Your task to perform on an android device: open app "PUBG MOBILE" (install if not already installed) and go to login screen Image 0: 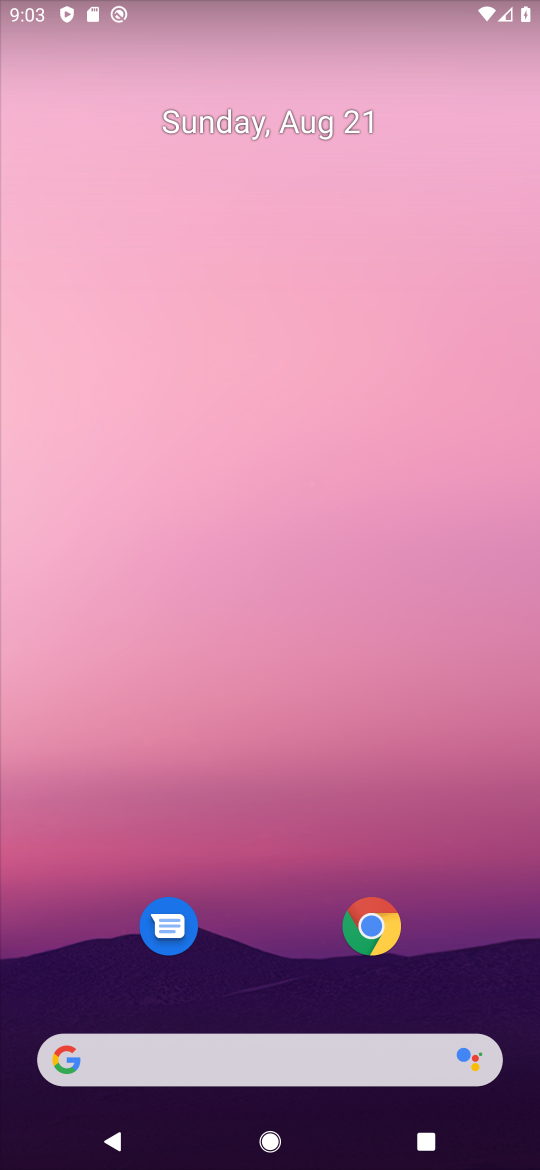
Step 0: drag from (260, 884) to (389, 1)
Your task to perform on an android device: open app "PUBG MOBILE" (install if not already installed) and go to login screen Image 1: 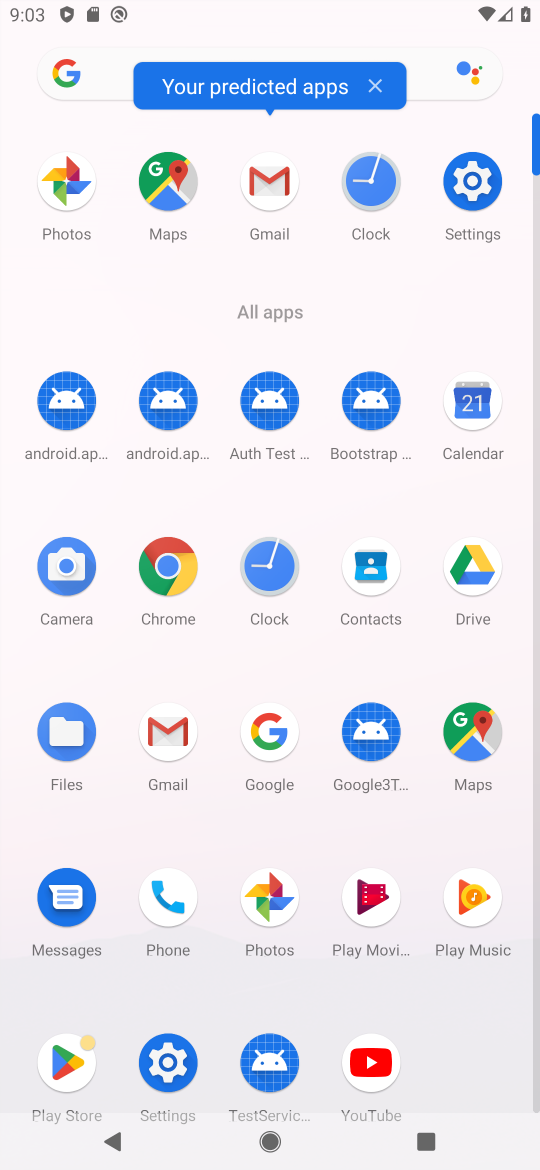
Step 1: drag from (287, 924) to (416, 328)
Your task to perform on an android device: open app "PUBG MOBILE" (install if not already installed) and go to login screen Image 2: 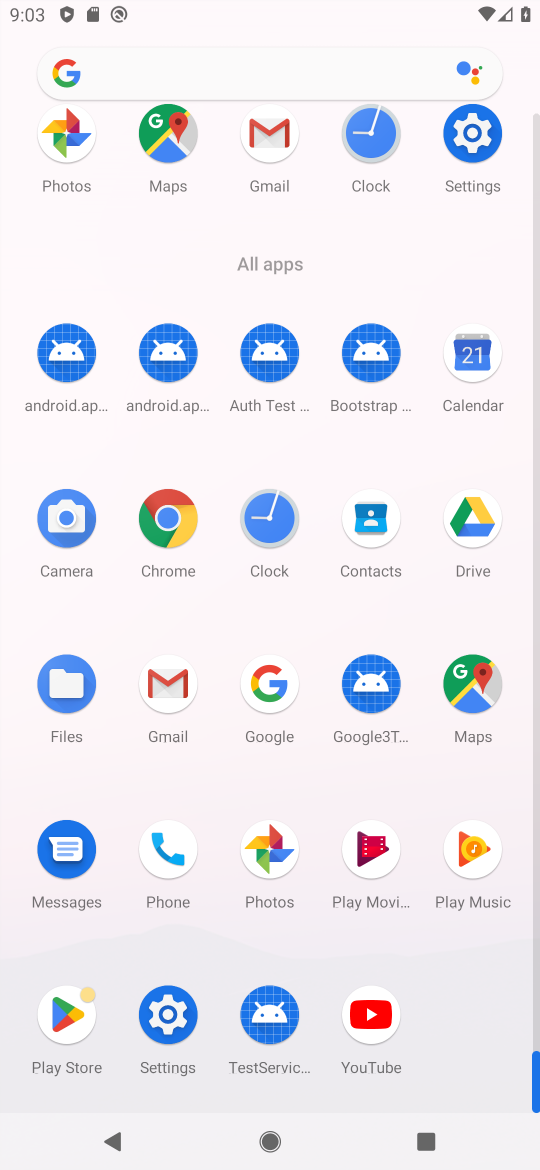
Step 2: click (54, 1026)
Your task to perform on an android device: open app "PUBG MOBILE" (install if not already installed) and go to login screen Image 3: 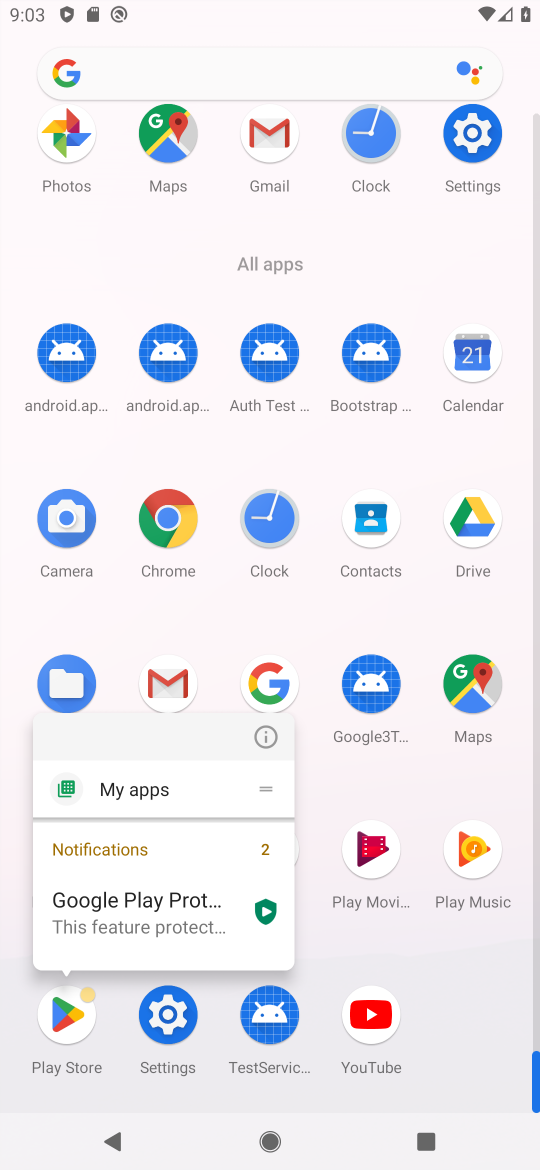
Step 3: click (58, 1005)
Your task to perform on an android device: open app "PUBG MOBILE" (install if not already installed) and go to login screen Image 4: 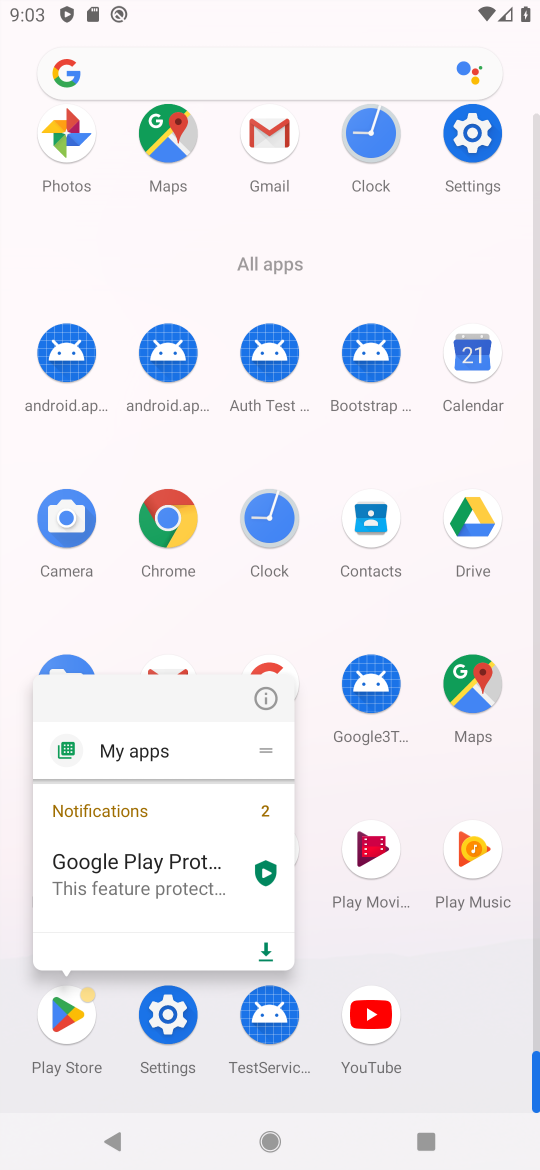
Step 4: click (58, 1005)
Your task to perform on an android device: open app "PUBG MOBILE" (install if not already installed) and go to login screen Image 5: 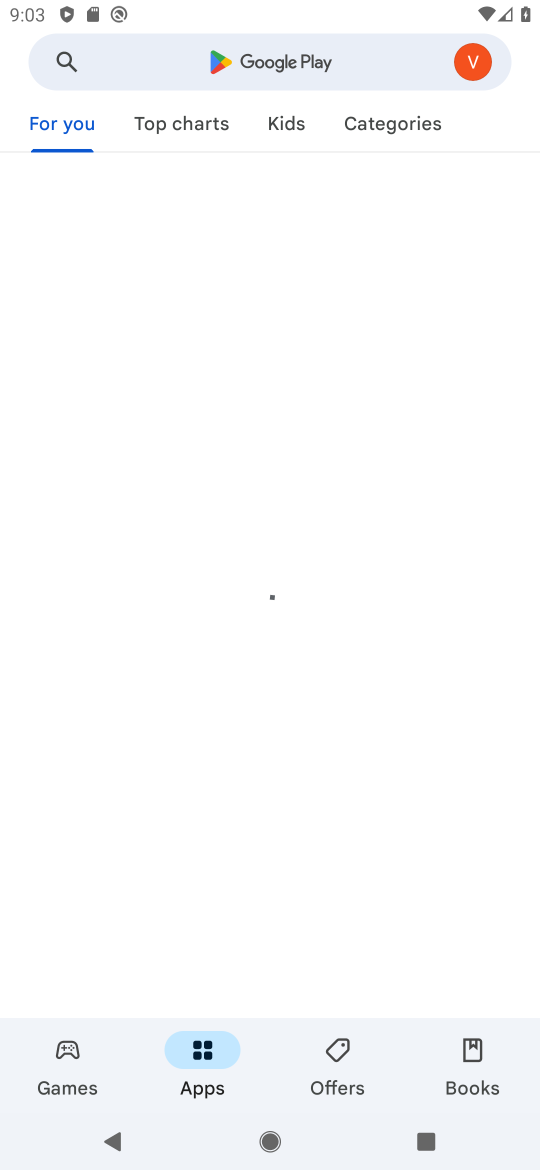
Step 5: click (186, 68)
Your task to perform on an android device: open app "PUBG MOBILE" (install if not already installed) and go to login screen Image 6: 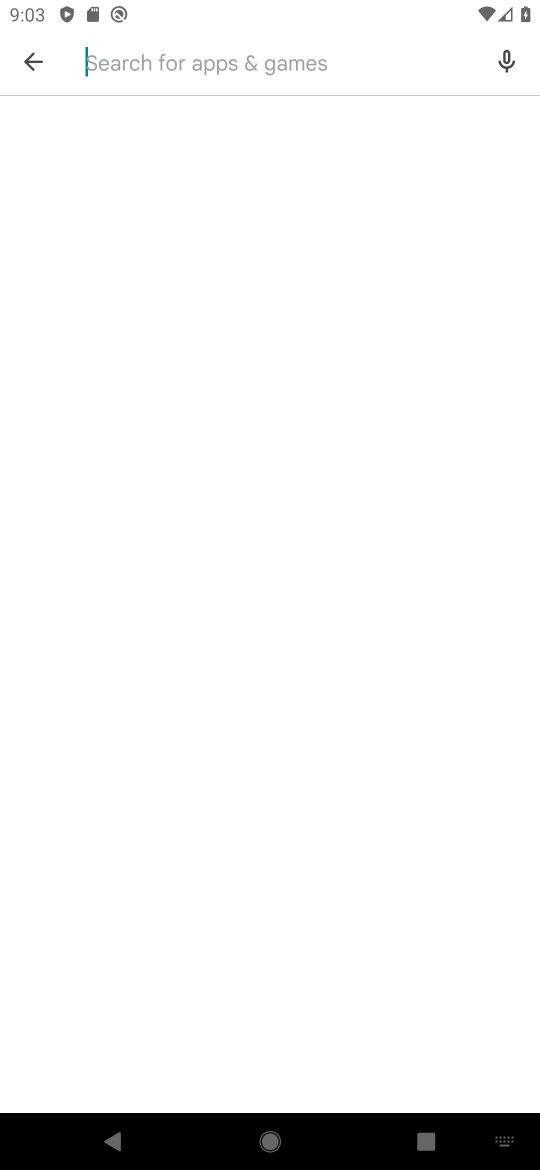
Step 6: type "PUBG MOBILE"
Your task to perform on an android device: open app "PUBG MOBILE" (install if not already installed) and go to login screen Image 7: 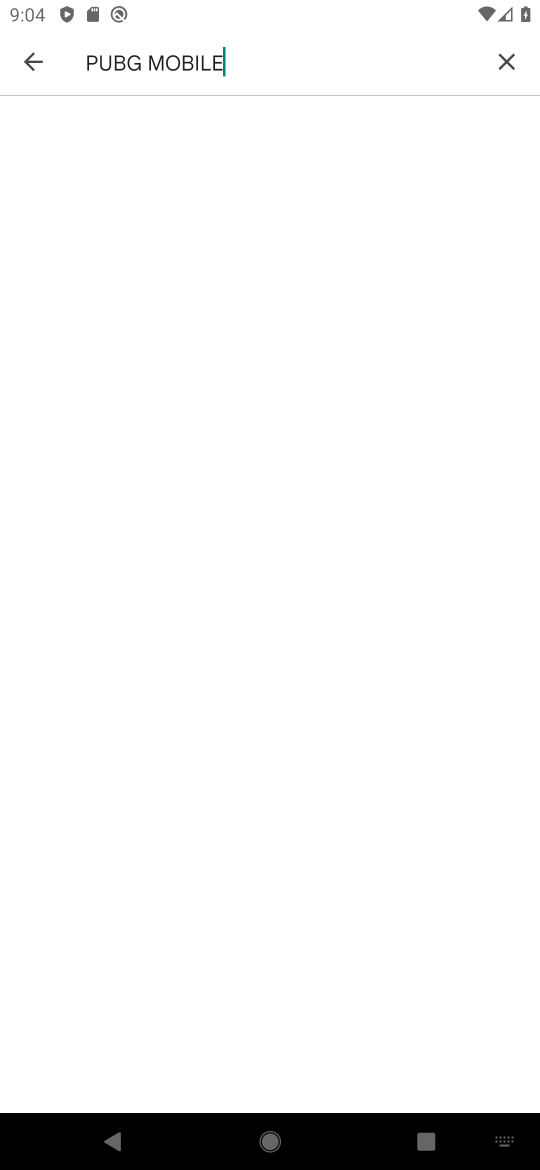
Step 7: press enter
Your task to perform on an android device: open app "PUBG MOBILE" (install if not already installed) and go to login screen Image 8: 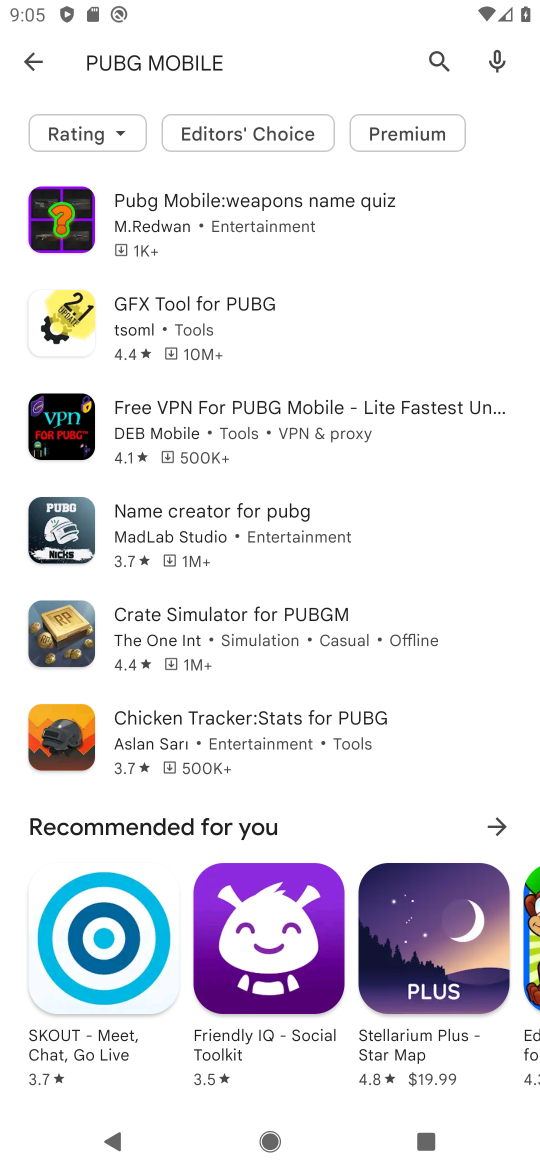
Step 8: task complete